Your task to perform on an android device: turn off location history Image 0: 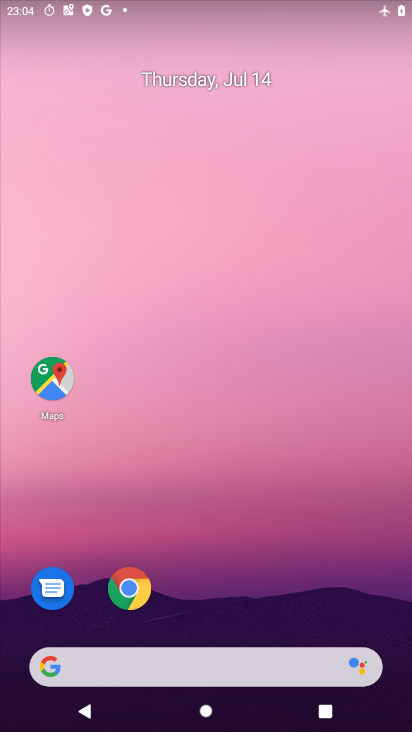
Step 0: drag from (290, 619) to (307, 99)
Your task to perform on an android device: turn off location history Image 1: 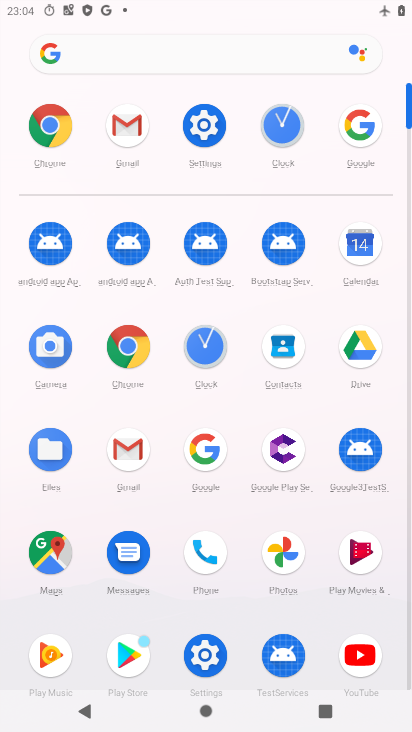
Step 1: click (211, 124)
Your task to perform on an android device: turn off location history Image 2: 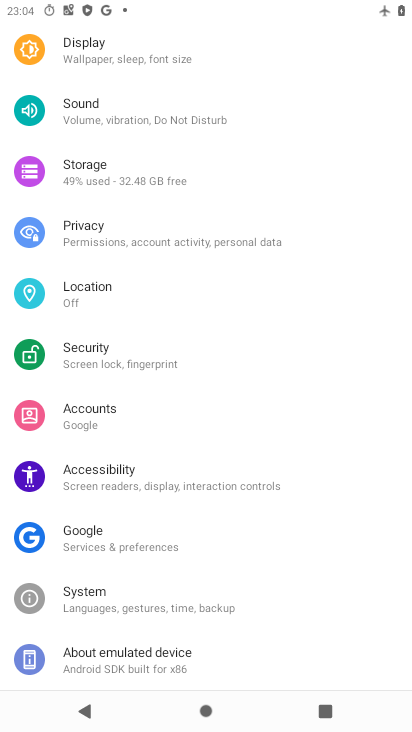
Step 2: click (118, 294)
Your task to perform on an android device: turn off location history Image 3: 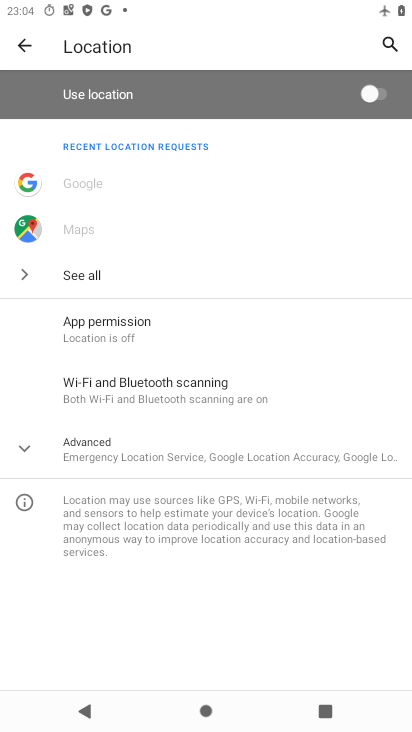
Step 3: click (110, 458)
Your task to perform on an android device: turn off location history Image 4: 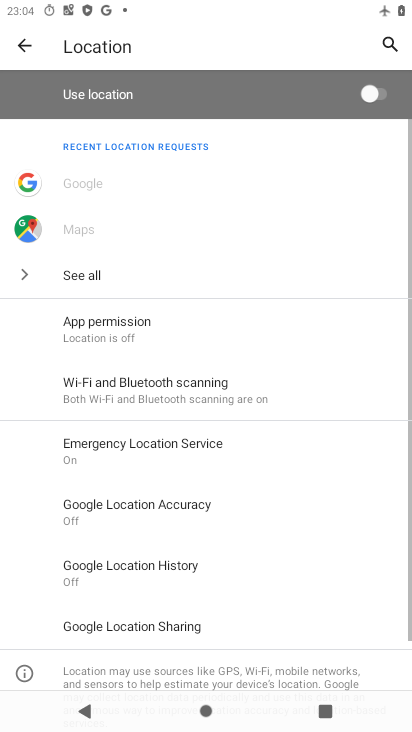
Step 4: click (175, 561)
Your task to perform on an android device: turn off location history Image 5: 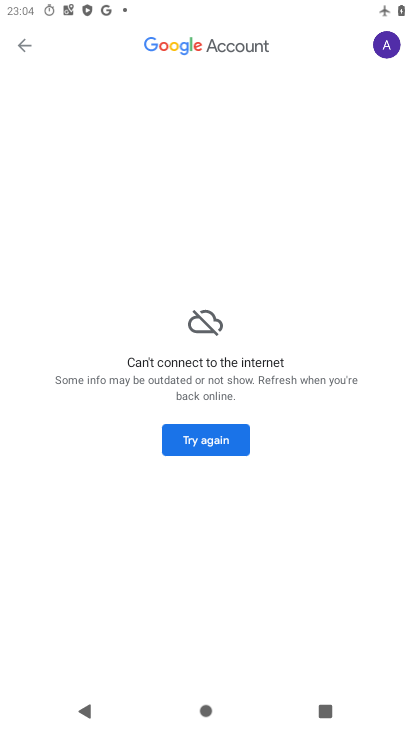
Step 5: task complete